Your task to perform on an android device: turn off picture-in-picture Image 0: 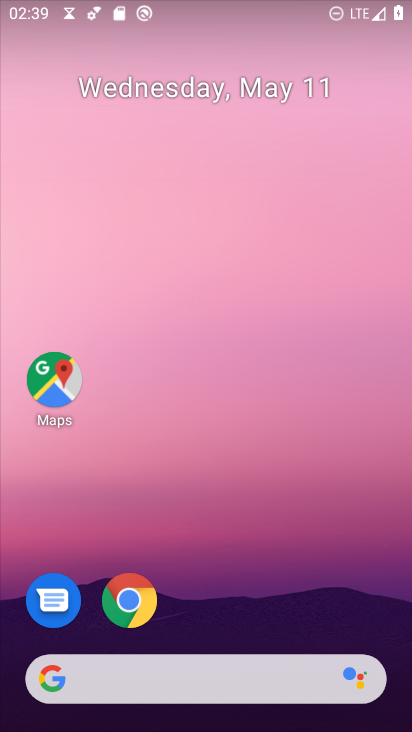
Step 0: drag from (250, 598) to (304, 272)
Your task to perform on an android device: turn off picture-in-picture Image 1: 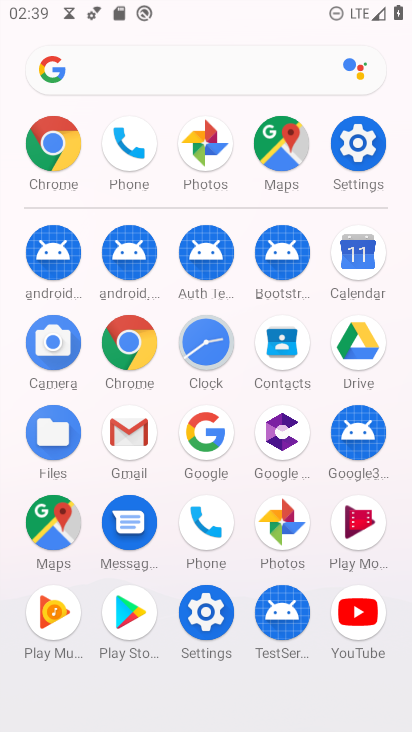
Step 1: click (360, 138)
Your task to perform on an android device: turn off picture-in-picture Image 2: 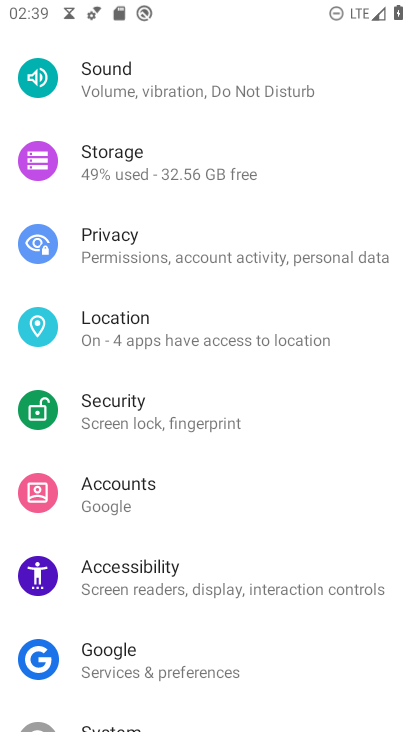
Step 2: drag from (217, 178) to (273, 651)
Your task to perform on an android device: turn off picture-in-picture Image 3: 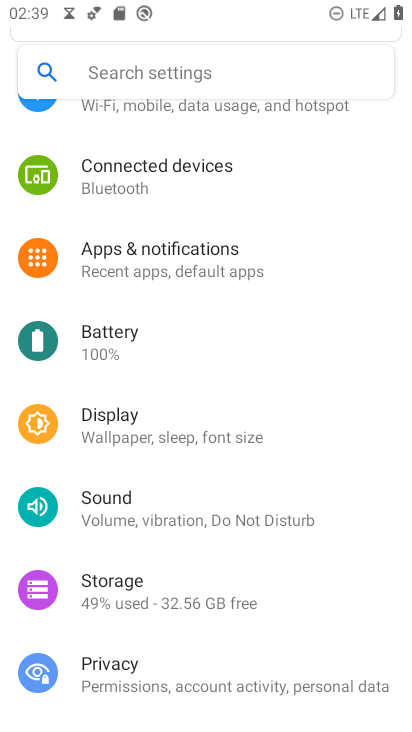
Step 3: click (188, 251)
Your task to perform on an android device: turn off picture-in-picture Image 4: 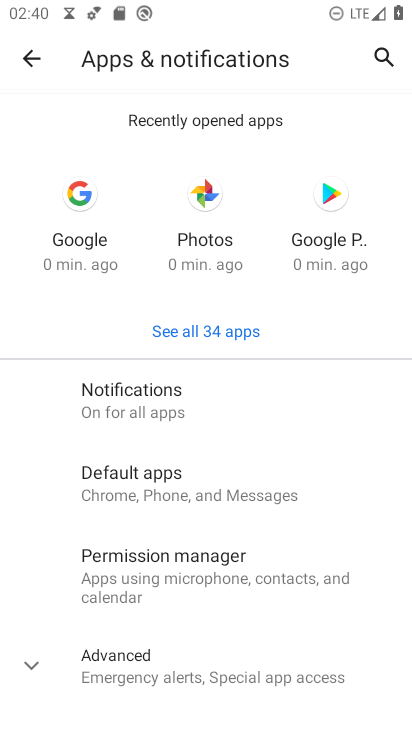
Step 4: click (199, 674)
Your task to perform on an android device: turn off picture-in-picture Image 5: 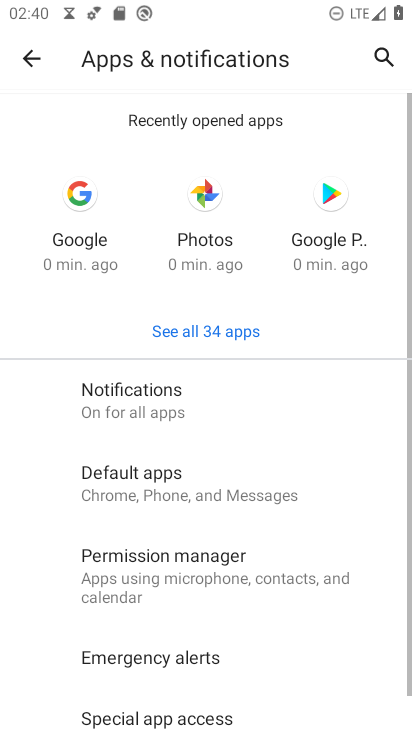
Step 5: drag from (236, 657) to (300, 413)
Your task to perform on an android device: turn off picture-in-picture Image 6: 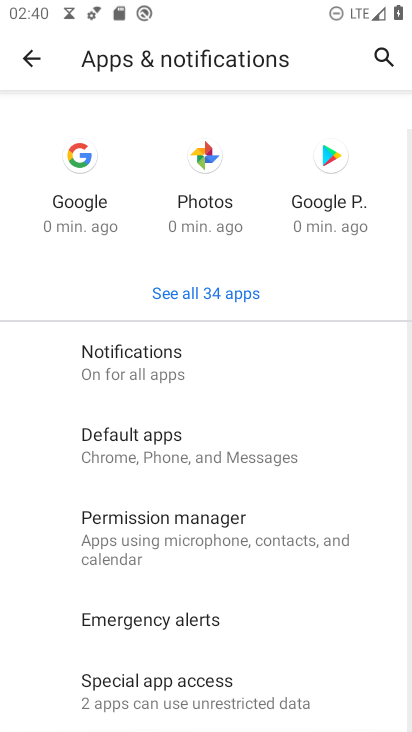
Step 6: click (229, 692)
Your task to perform on an android device: turn off picture-in-picture Image 7: 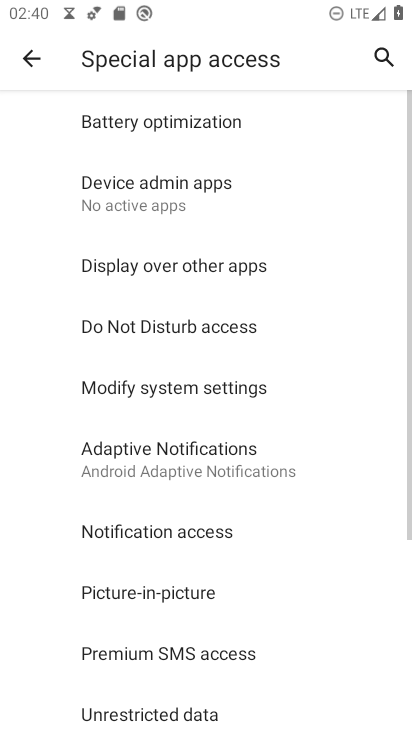
Step 7: click (157, 594)
Your task to perform on an android device: turn off picture-in-picture Image 8: 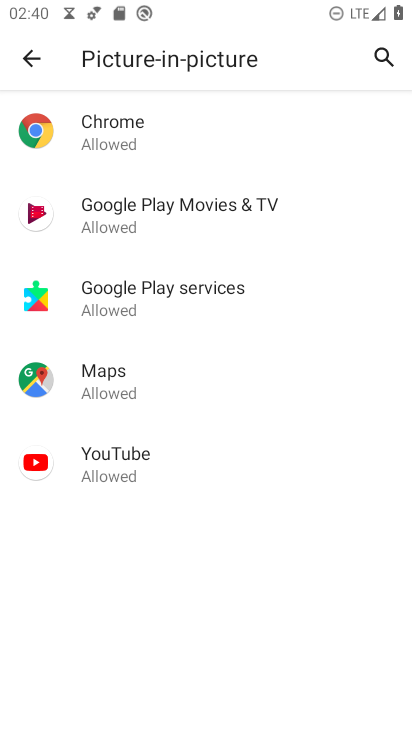
Step 8: click (131, 461)
Your task to perform on an android device: turn off picture-in-picture Image 9: 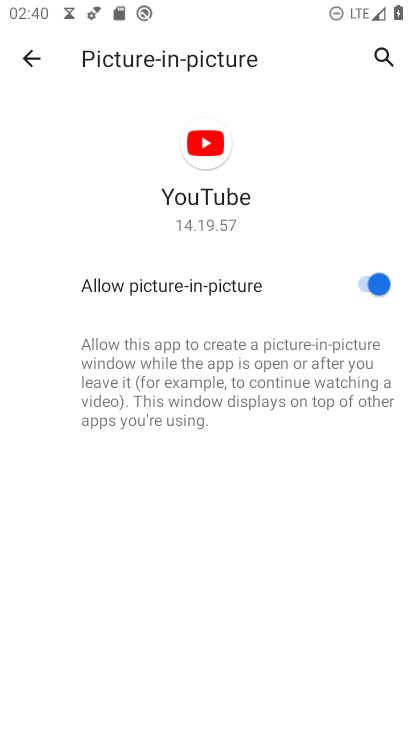
Step 9: click (369, 276)
Your task to perform on an android device: turn off picture-in-picture Image 10: 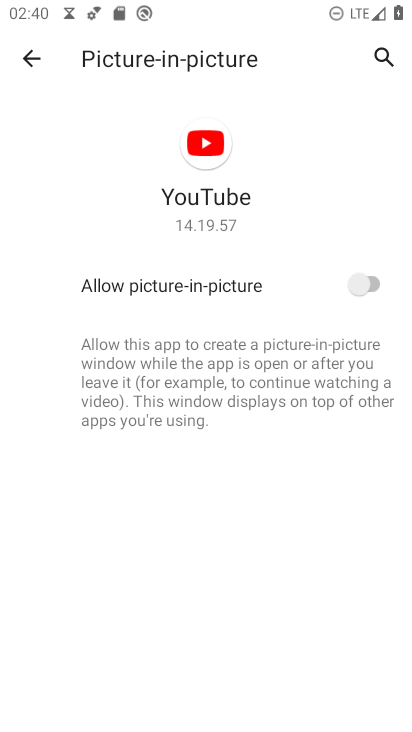
Step 10: task complete